Your task to perform on an android device: Open wifi settings Image 0: 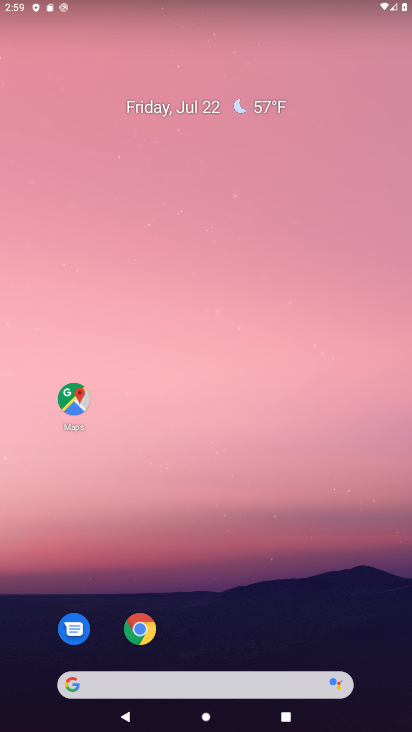
Step 0: drag from (295, 602) to (214, 99)
Your task to perform on an android device: Open wifi settings Image 1: 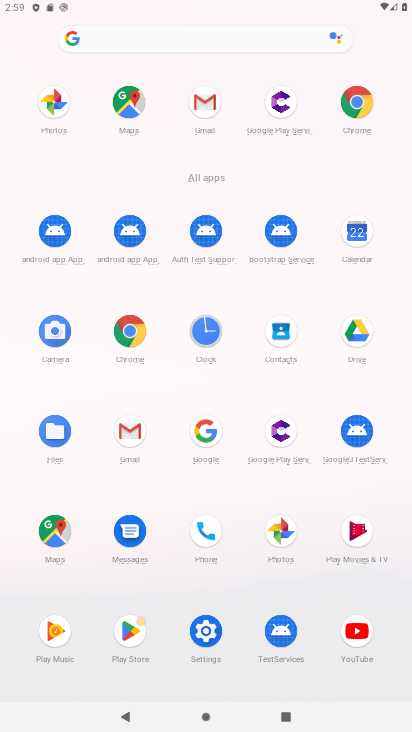
Step 1: click (210, 628)
Your task to perform on an android device: Open wifi settings Image 2: 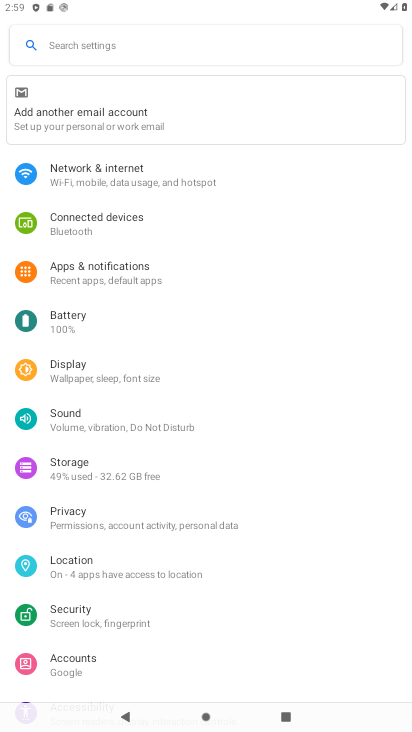
Step 2: click (148, 186)
Your task to perform on an android device: Open wifi settings Image 3: 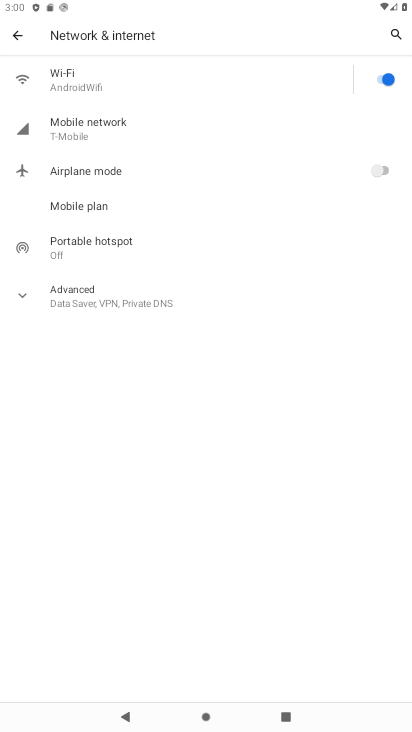
Step 3: click (131, 84)
Your task to perform on an android device: Open wifi settings Image 4: 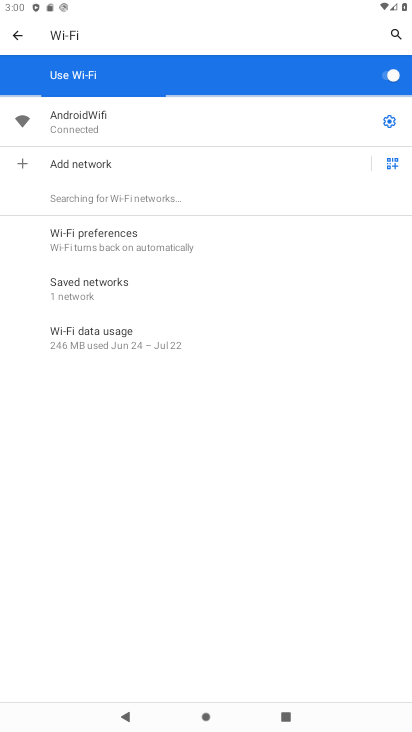
Step 4: task complete